Your task to perform on an android device: Open Reddit.com Image 0: 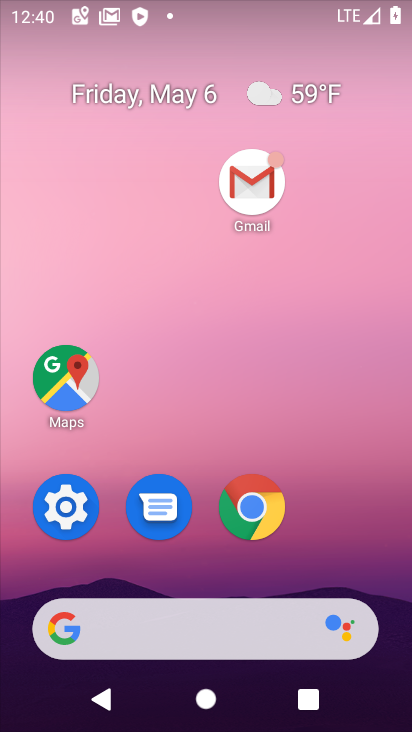
Step 0: click (254, 500)
Your task to perform on an android device: Open Reddit.com Image 1: 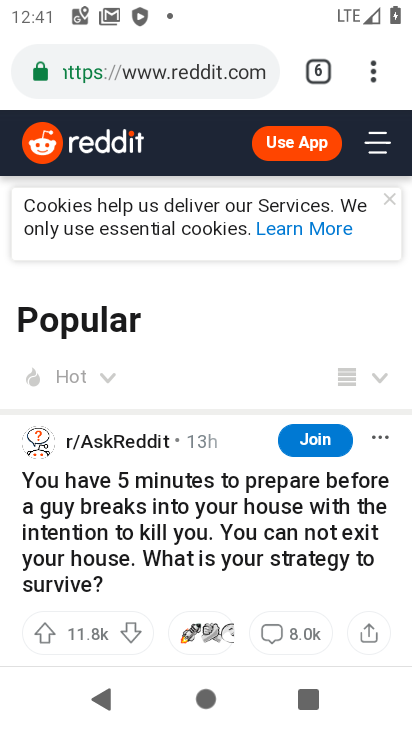
Step 1: task complete